Your task to perform on an android device: What's on Reddit this week Image 0: 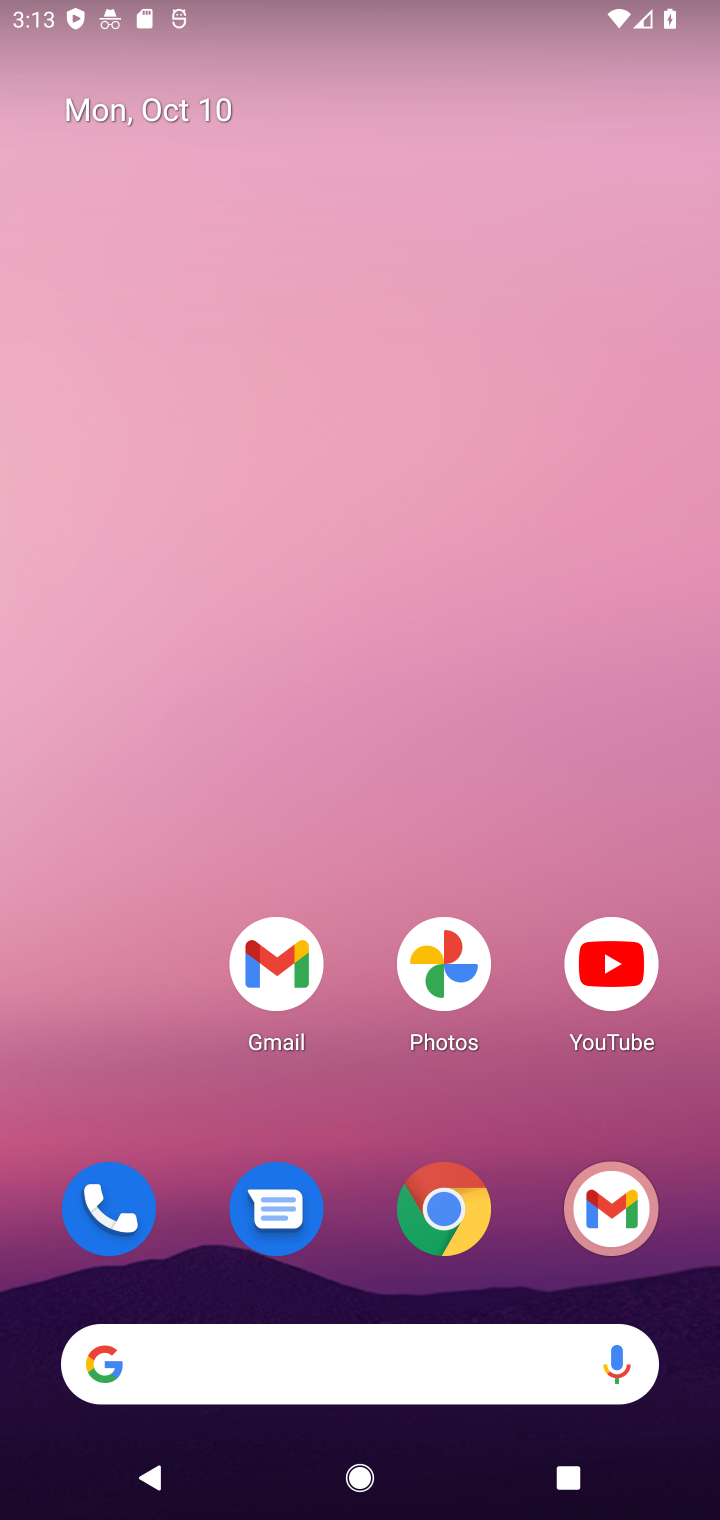
Step 0: click (457, 1202)
Your task to perform on an android device: What's on Reddit this week Image 1: 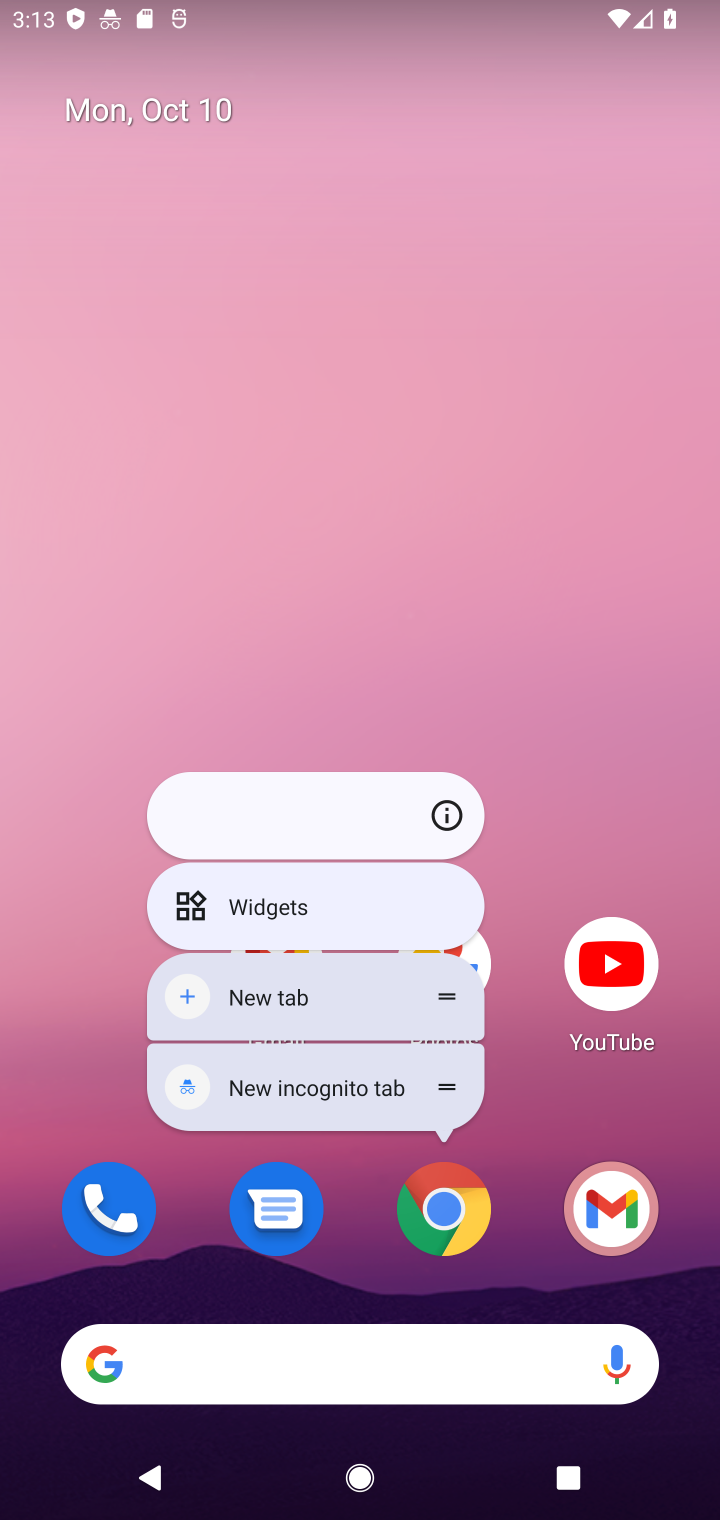
Step 1: click (457, 1202)
Your task to perform on an android device: What's on Reddit this week Image 2: 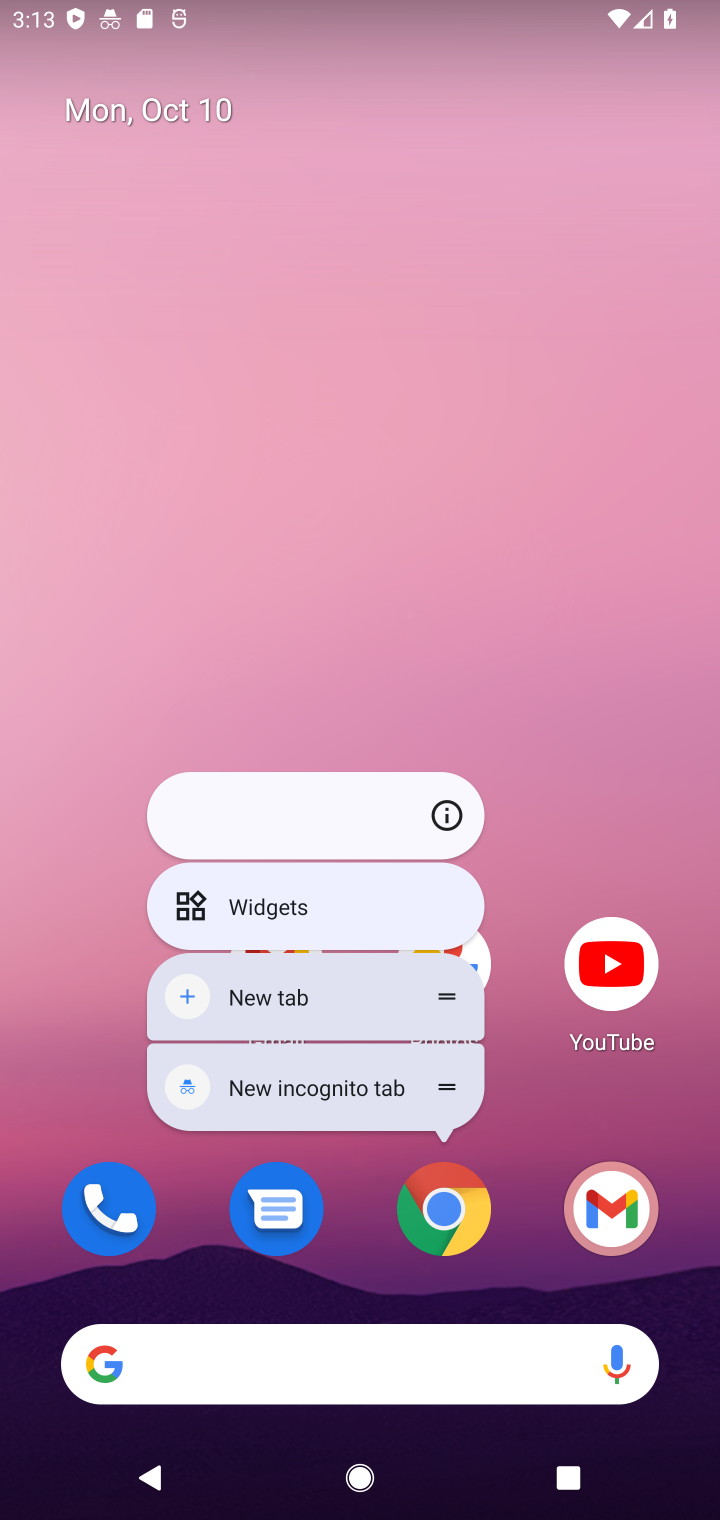
Step 2: click (457, 1202)
Your task to perform on an android device: What's on Reddit this week Image 3: 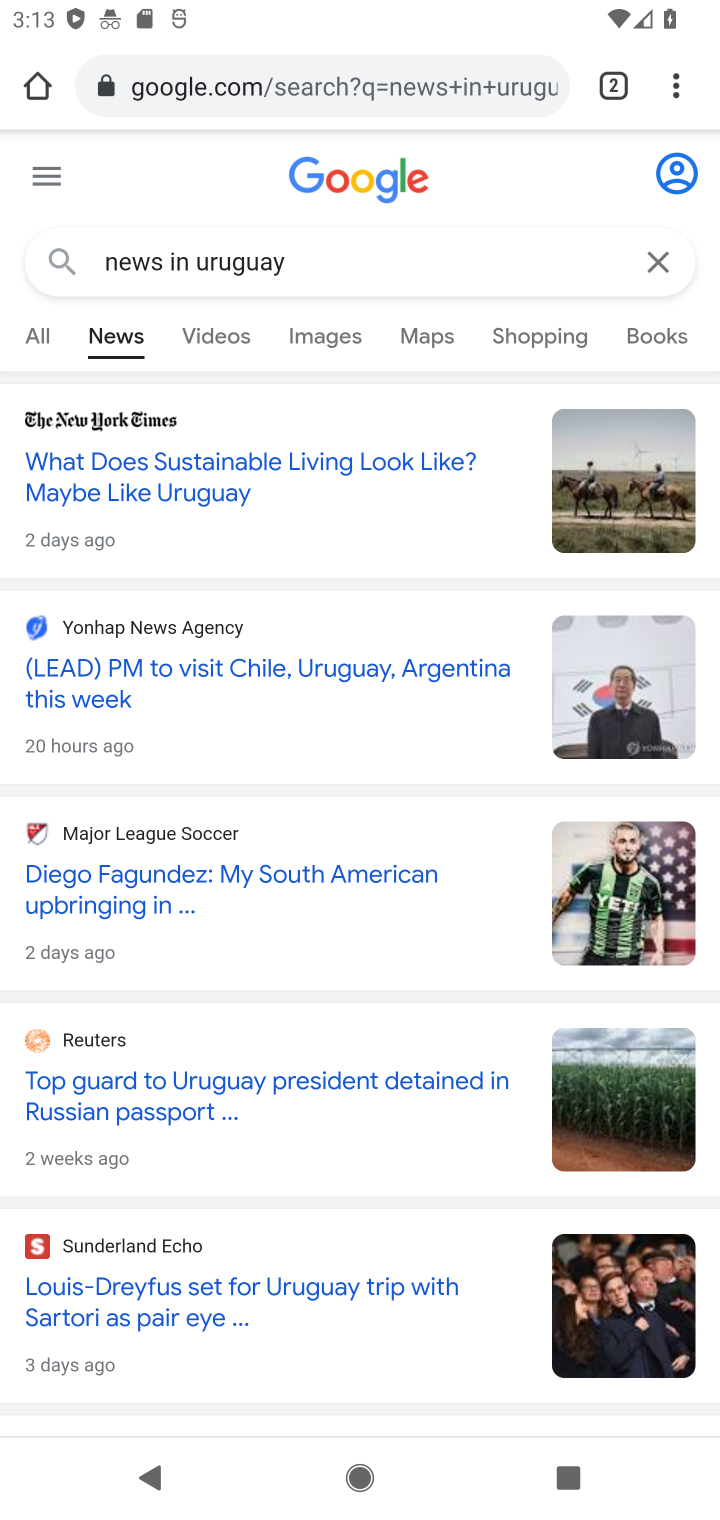
Step 3: click (31, 346)
Your task to perform on an android device: What's on Reddit this week Image 4: 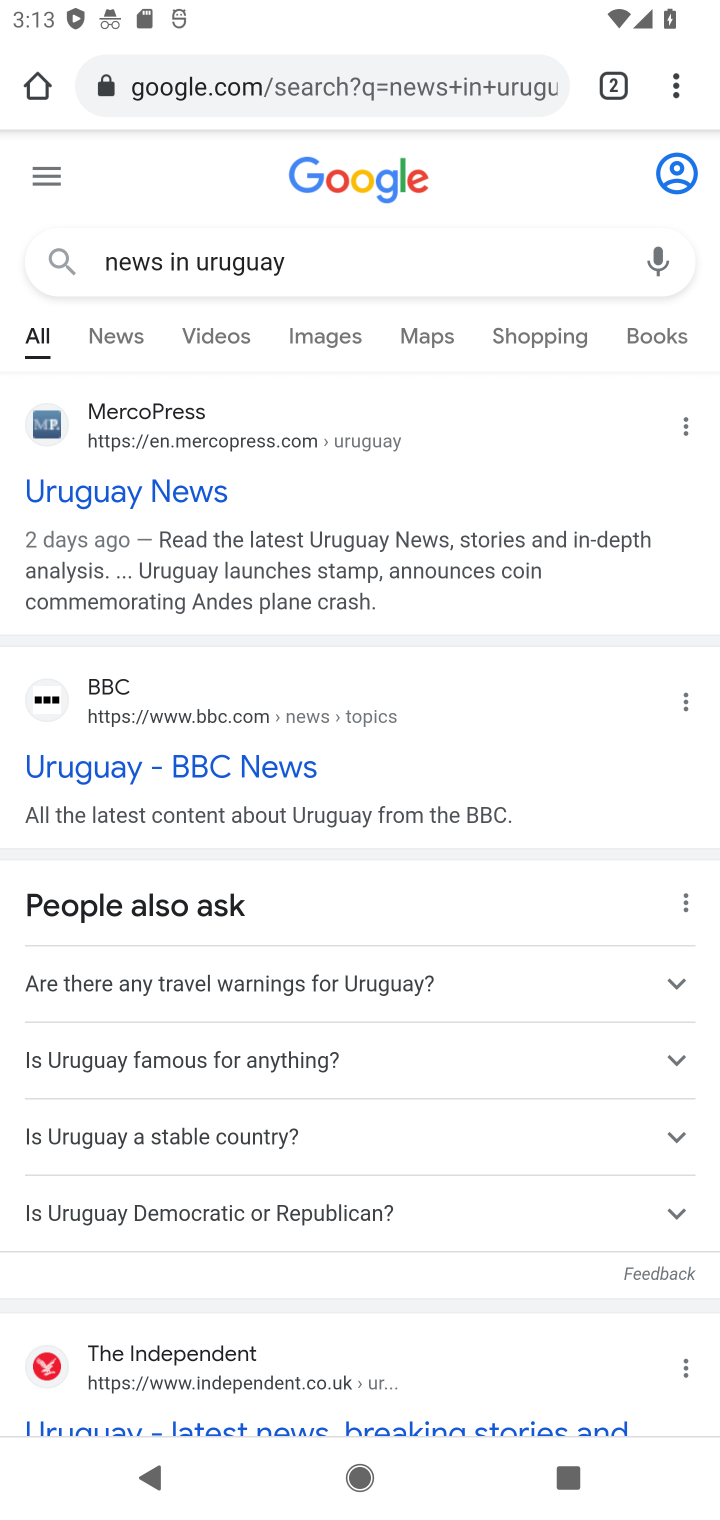
Step 4: click (413, 277)
Your task to perform on an android device: What's on Reddit this week Image 5: 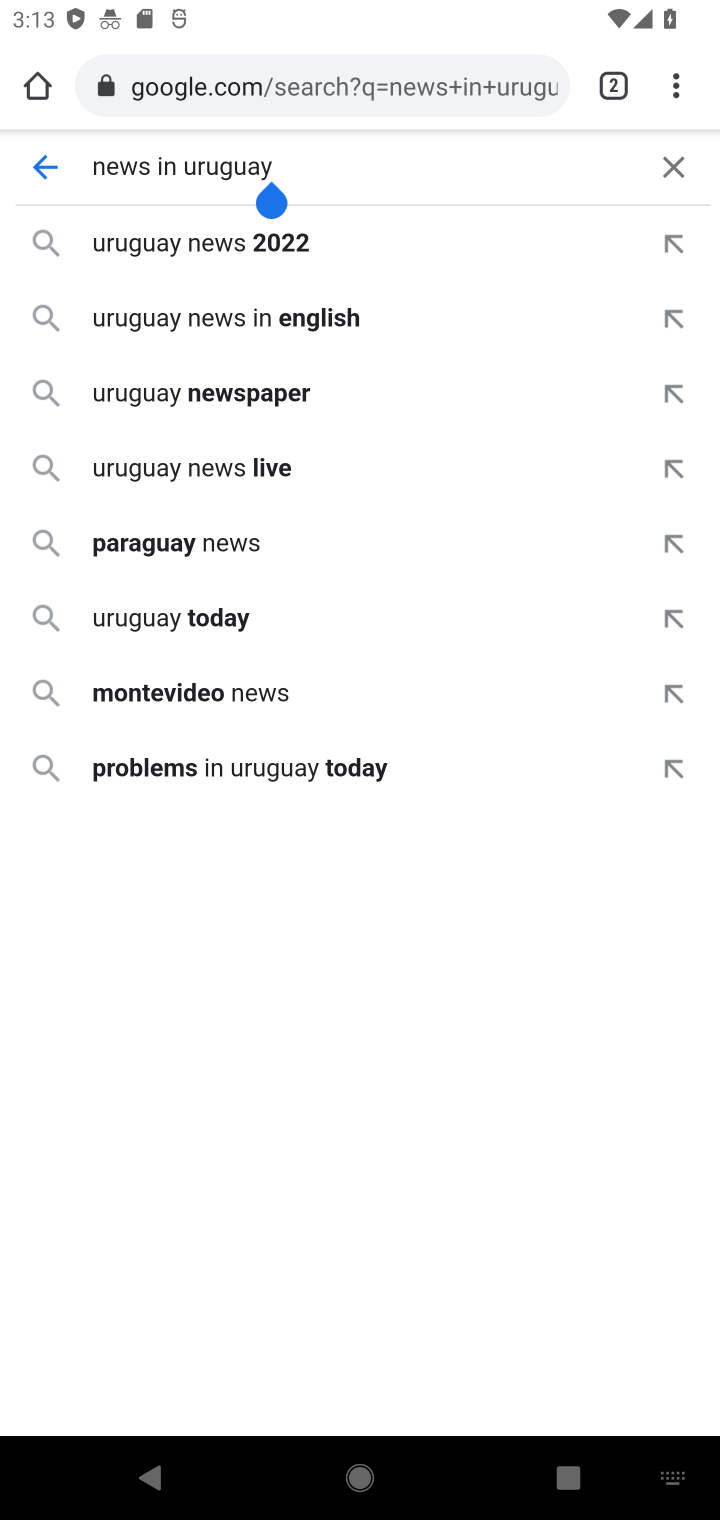
Step 5: click (692, 169)
Your task to perform on an android device: What's on Reddit this week Image 6: 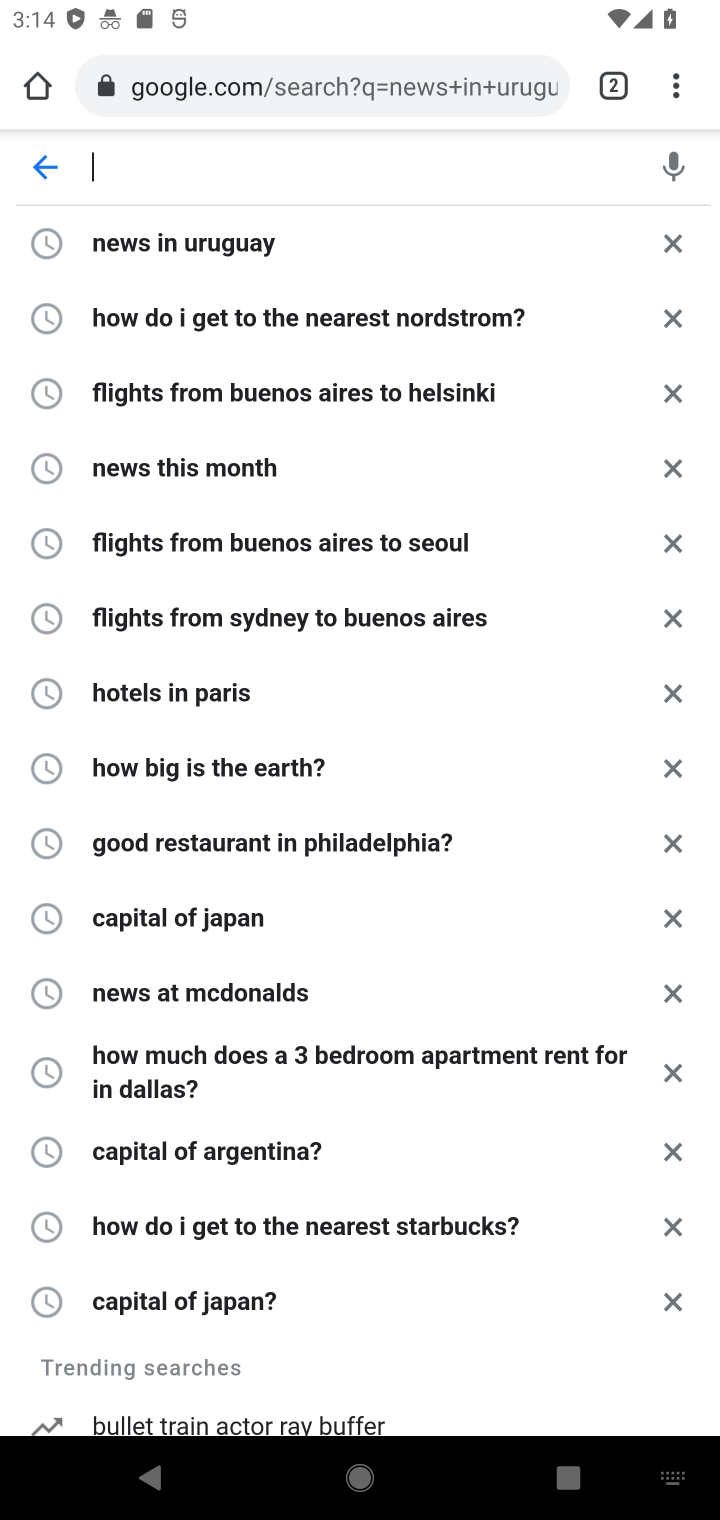
Step 6: type "What's on Reddit this week"
Your task to perform on an android device: What's on Reddit this week Image 7: 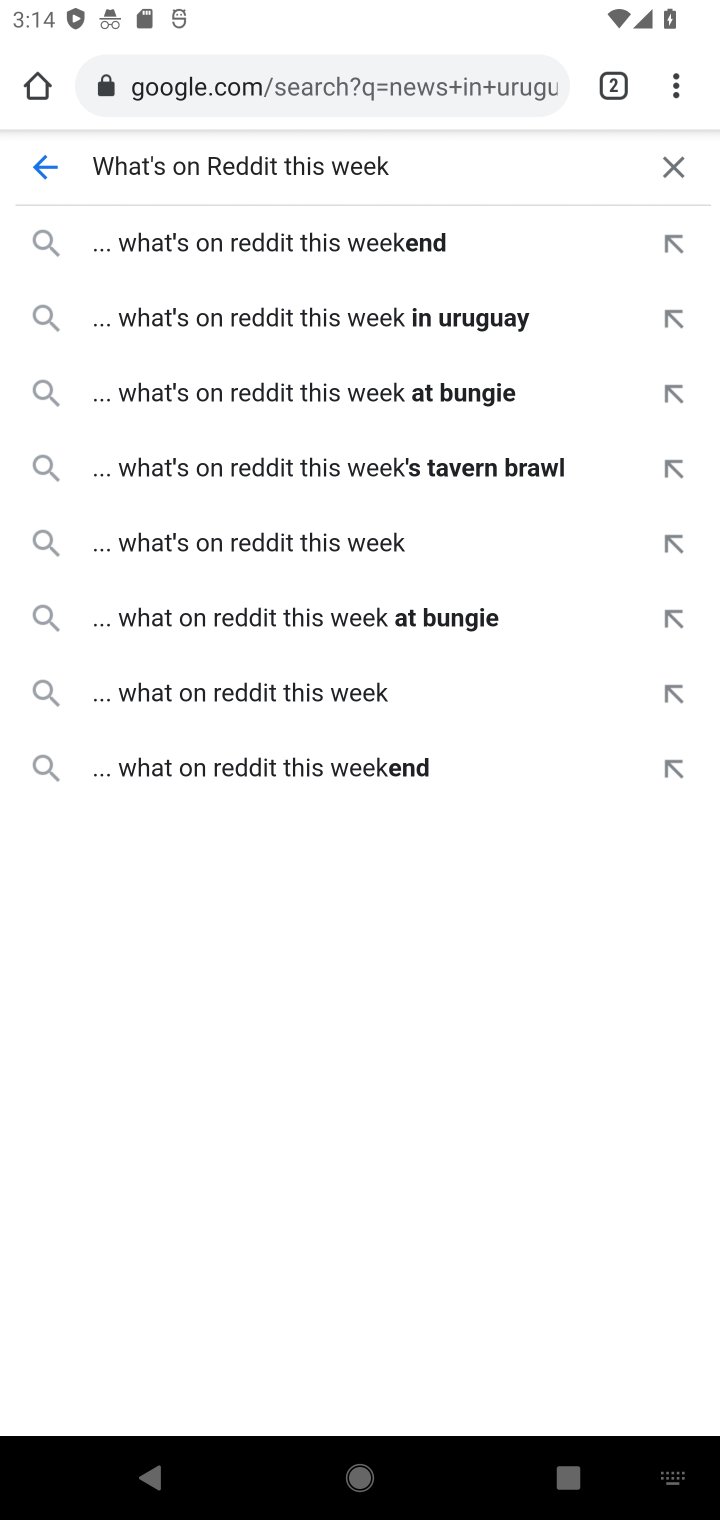
Step 7: press enter
Your task to perform on an android device: What's on Reddit this week Image 8: 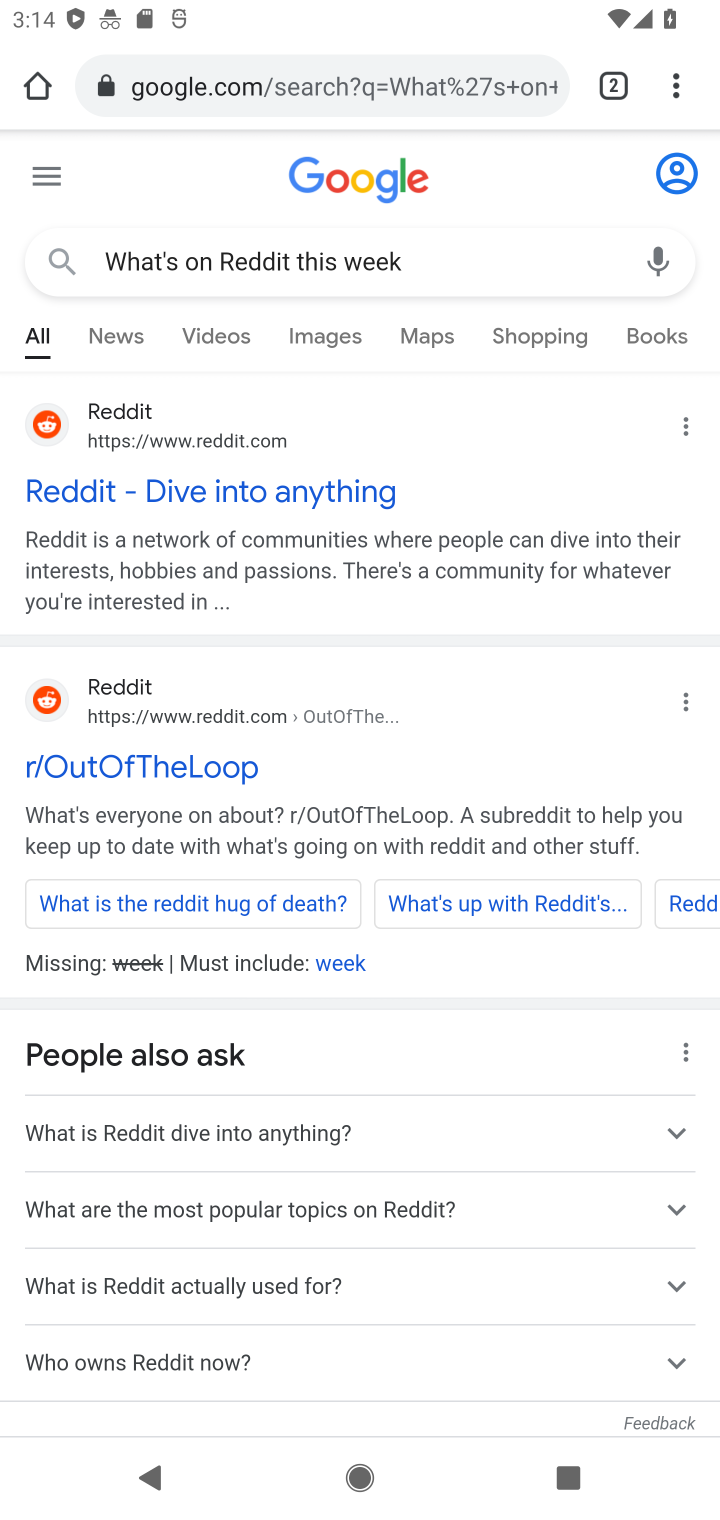
Step 8: click (237, 499)
Your task to perform on an android device: What's on Reddit this week Image 9: 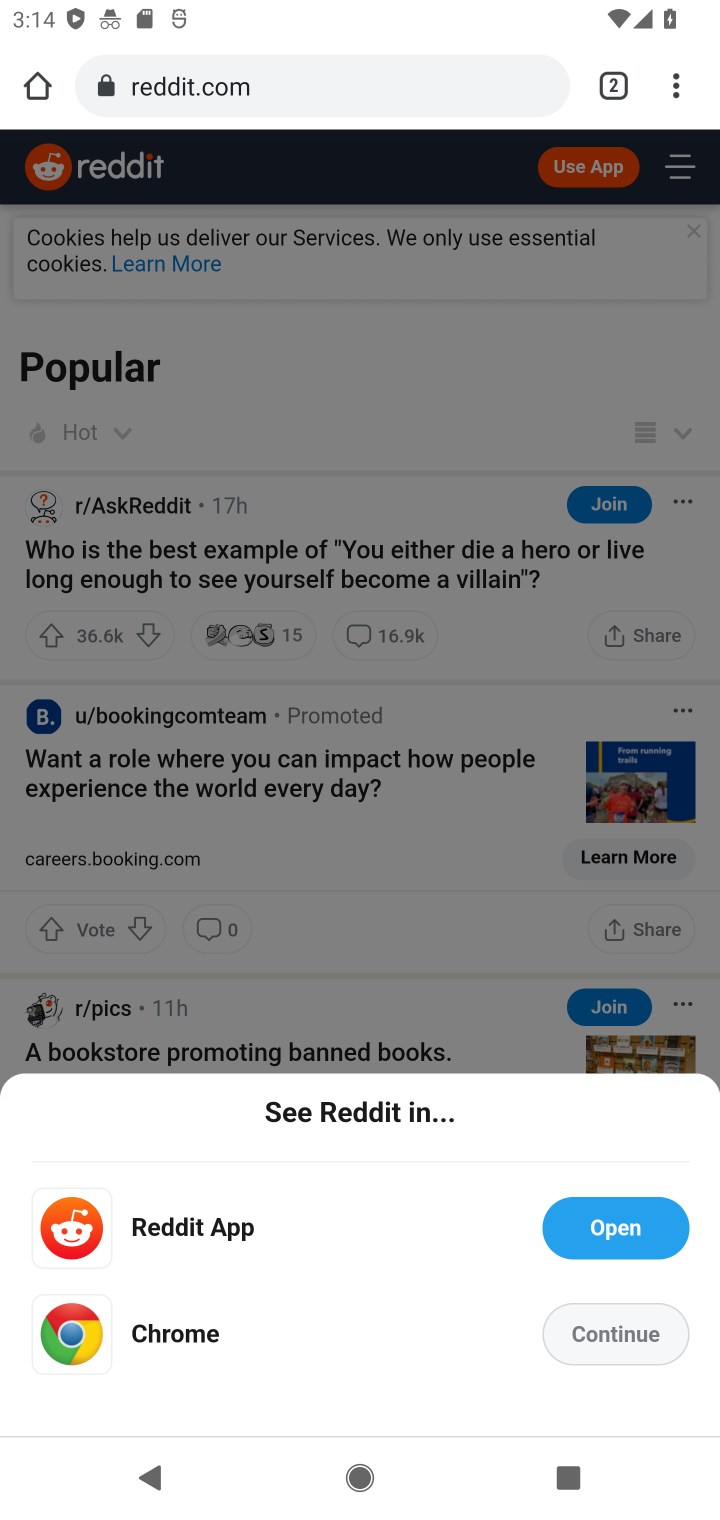
Step 9: click (479, 690)
Your task to perform on an android device: What's on Reddit this week Image 10: 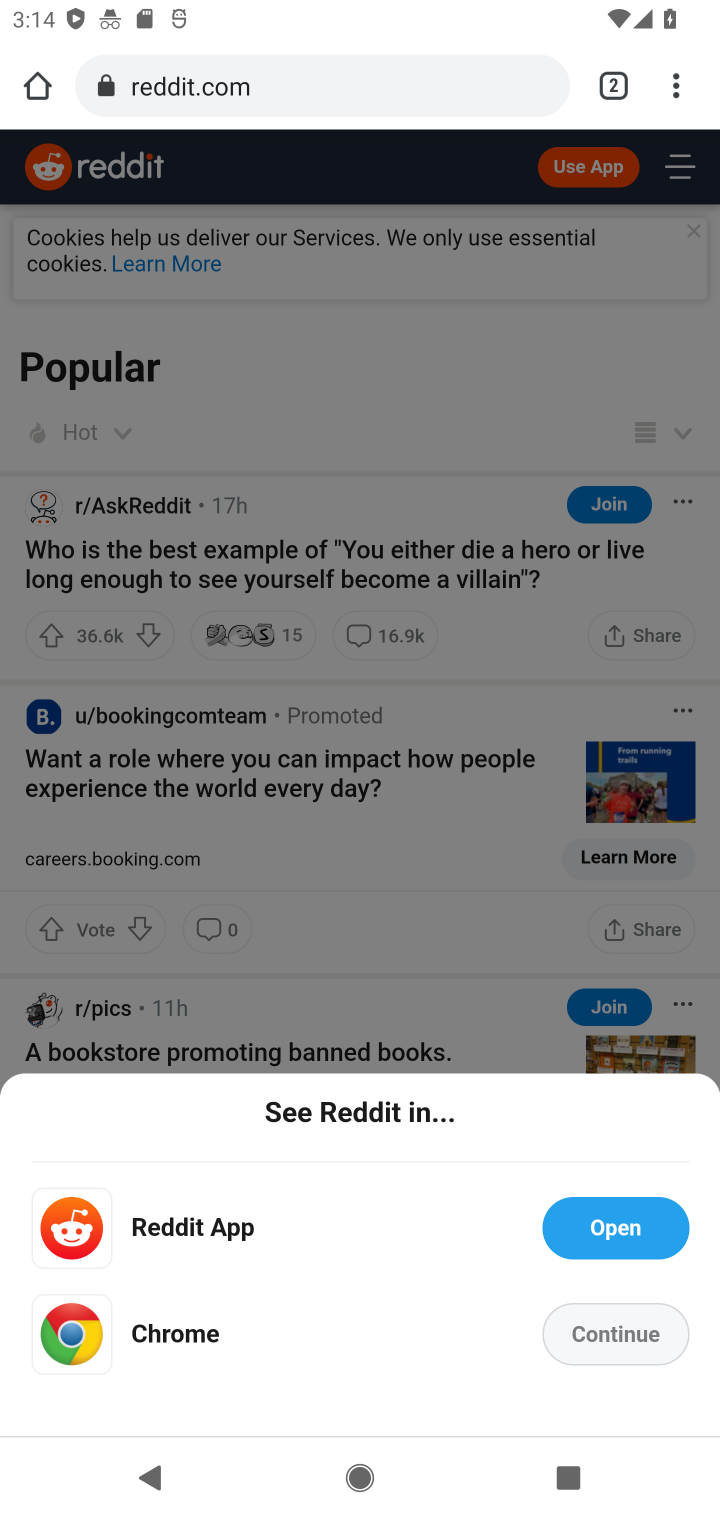
Step 10: click (625, 1238)
Your task to perform on an android device: What's on Reddit this week Image 11: 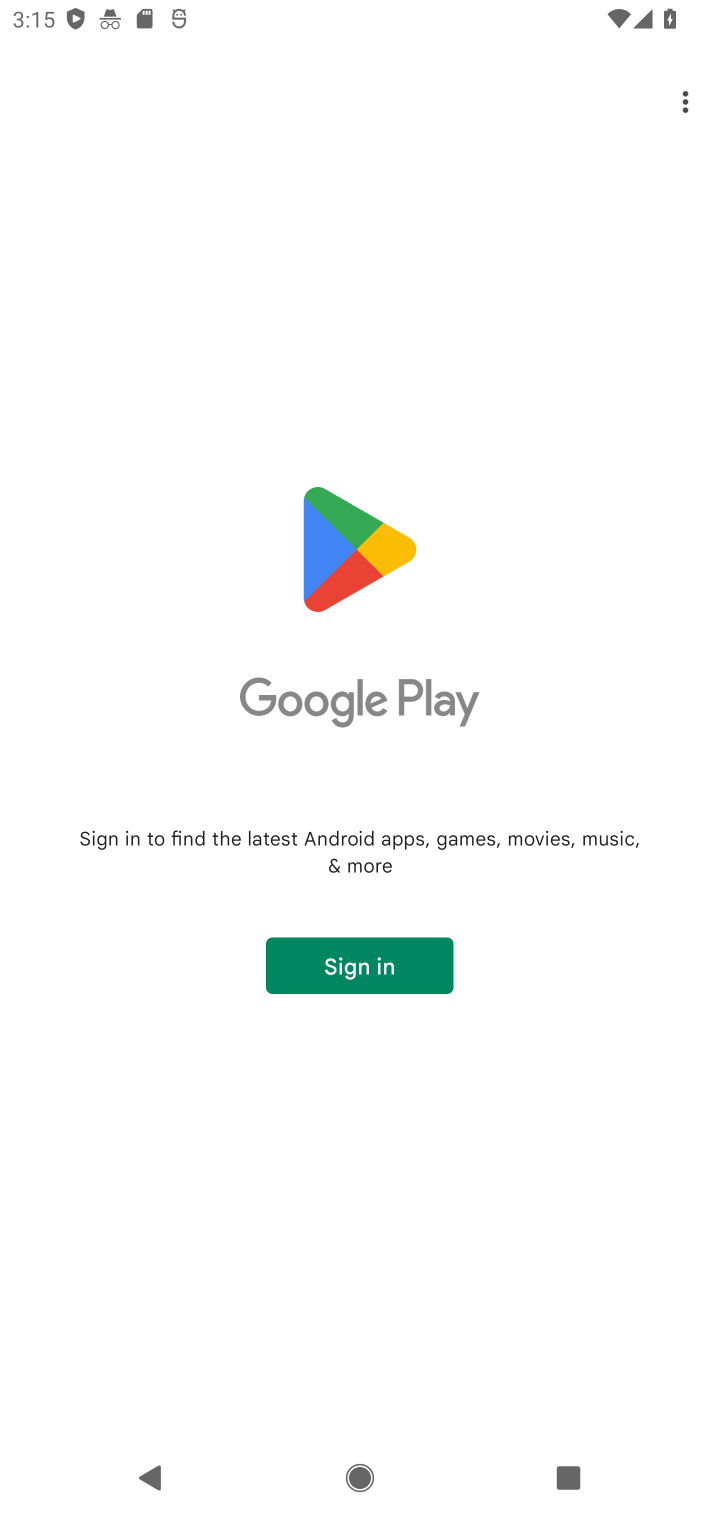
Step 11: task complete